Your task to perform on an android device: Open Google Image 0: 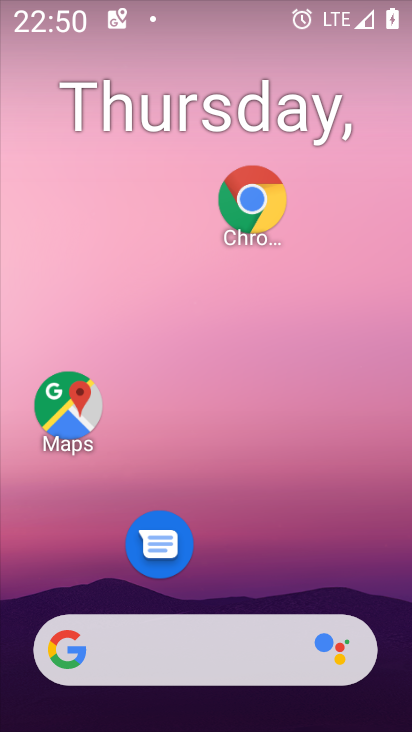
Step 0: click (170, 632)
Your task to perform on an android device: Open Google Image 1: 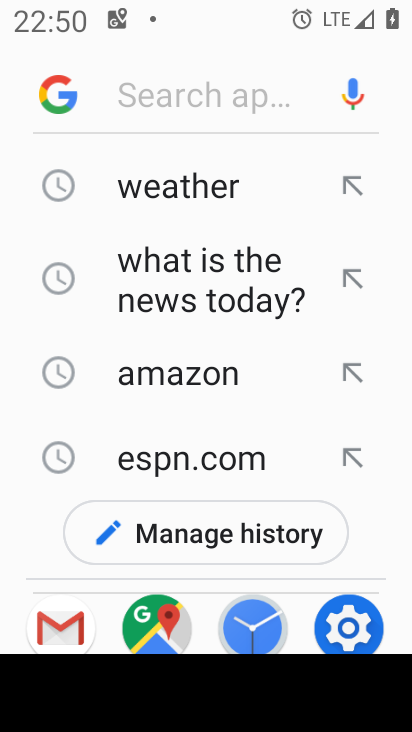
Step 1: task complete